Your task to perform on an android device: turn off data saver in the chrome app Image 0: 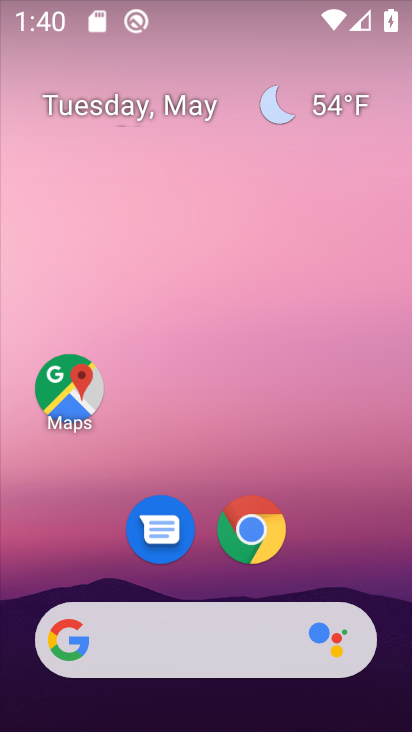
Step 0: click (268, 519)
Your task to perform on an android device: turn off data saver in the chrome app Image 1: 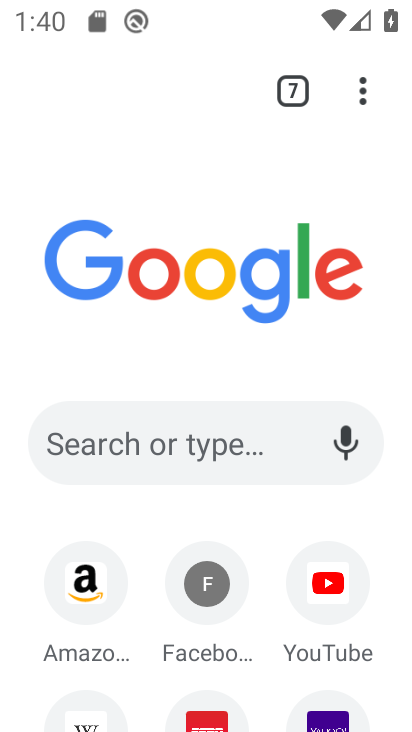
Step 1: click (363, 83)
Your task to perform on an android device: turn off data saver in the chrome app Image 2: 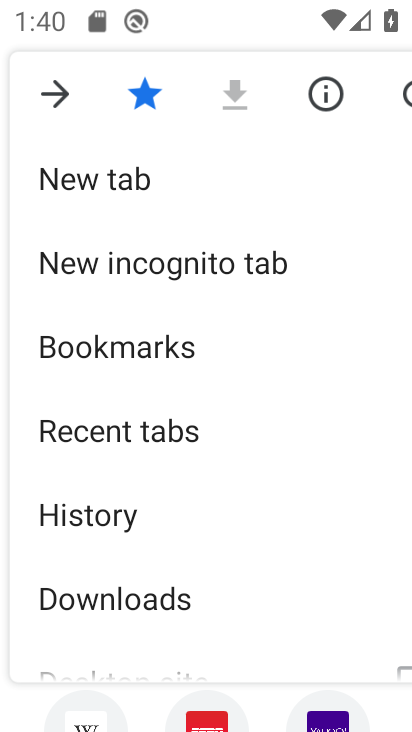
Step 2: drag from (227, 581) to (249, 319)
Your task to perform on an android device: turn off data saver in the chrome app Image 3: 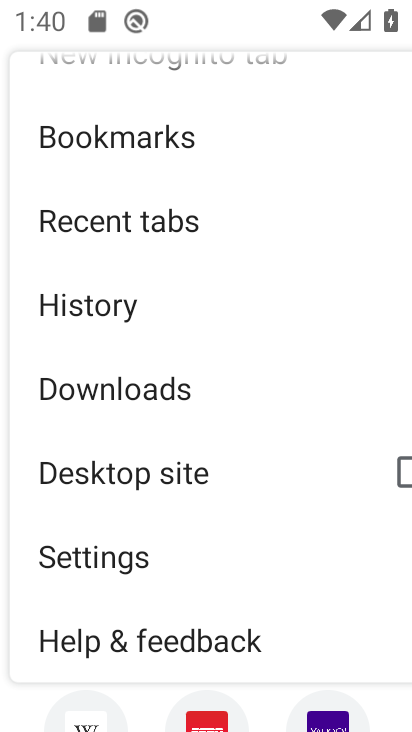
Step 3: click (148, 568)
Your task to perform on an android device: turn off data saver in the chrome app Image 4: 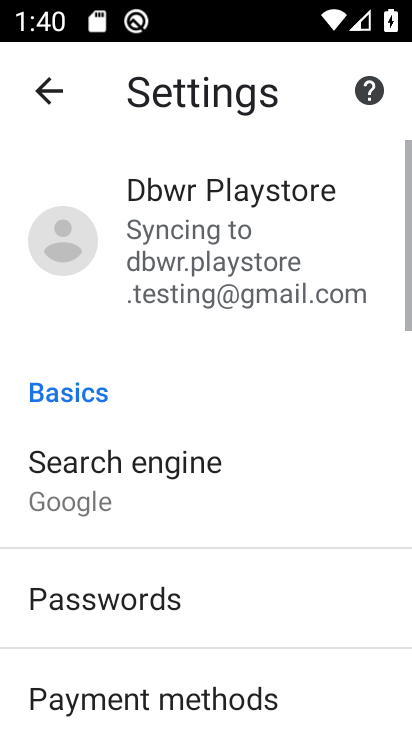
Step 4: drag from (207, 598) to (254, 333)
Your task to perform on an android device: turn off data saver in the chrome app Image 5: 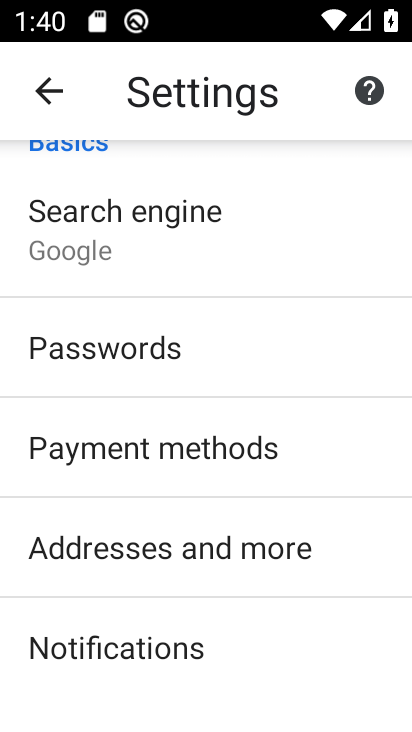
Step 5: drag from (181, 610) to (238, 272)
Your task to perform on an android device: turn off data saver in the chrome app Image 6: 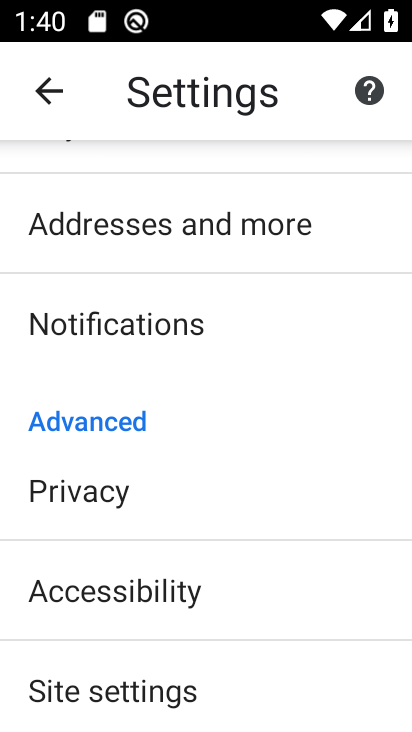
Step 6: drag from (123, 628) to (169, 343)
Your task to perform on an android device: turn off data saver in the chrome app Image 7: 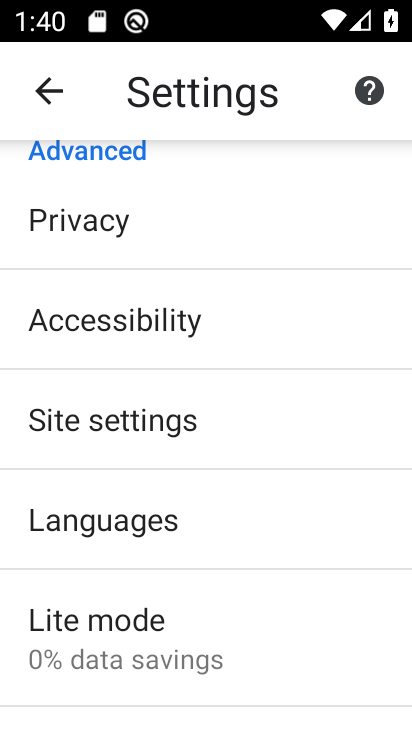
Step 7: click (146, 614)
Your task to perform on an android device: turn off data saver in the chrome app Image 8: 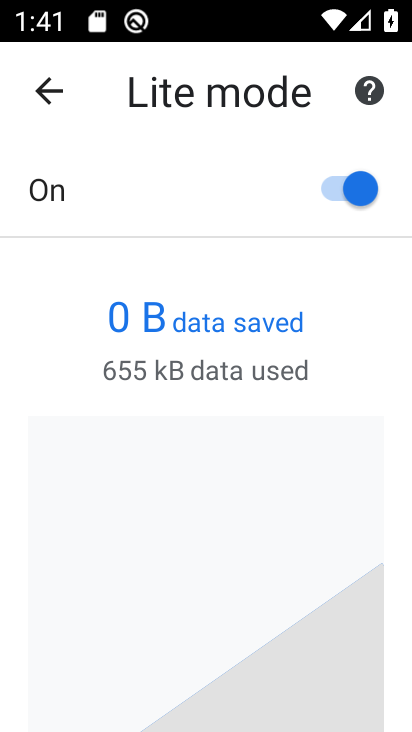
Step 8: click (322, 187)
Your task to perform on an android device: turn off data saver in the chrome app Image 9: 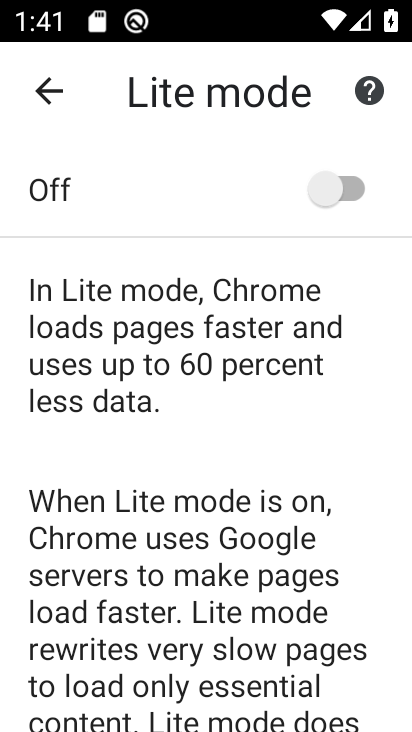
Step 9: task complete